Your task to perform on an android device: turn off airplane mode Image 0: 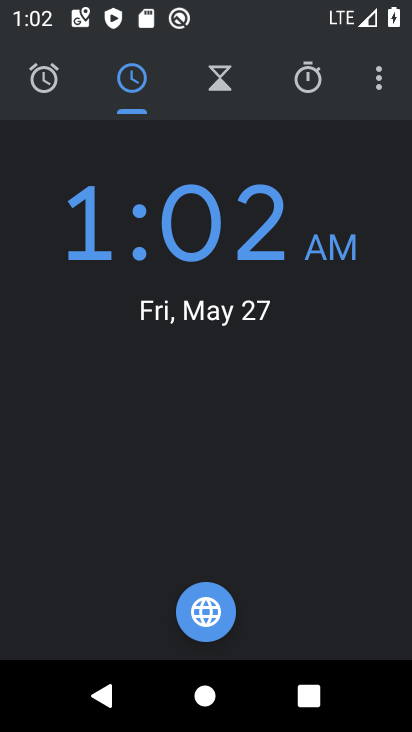
Step 0: press home button
Your task to perform on an android device: turn off airplane mode Image 1: 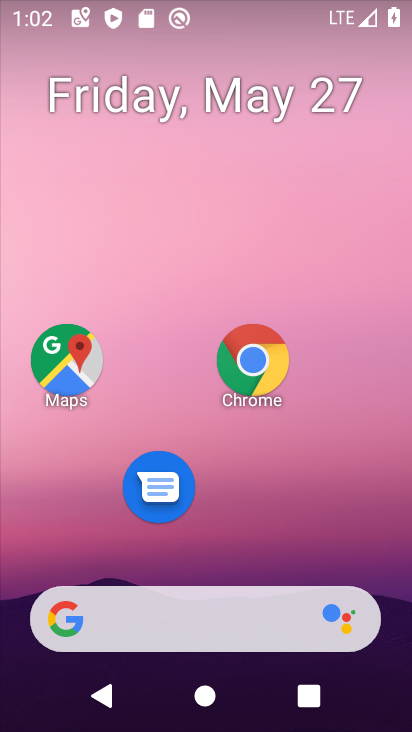
Step 1: drag from (229, 525) to (224, 87)
Your task to perform on an android device: turn off airplane mode Image 2: 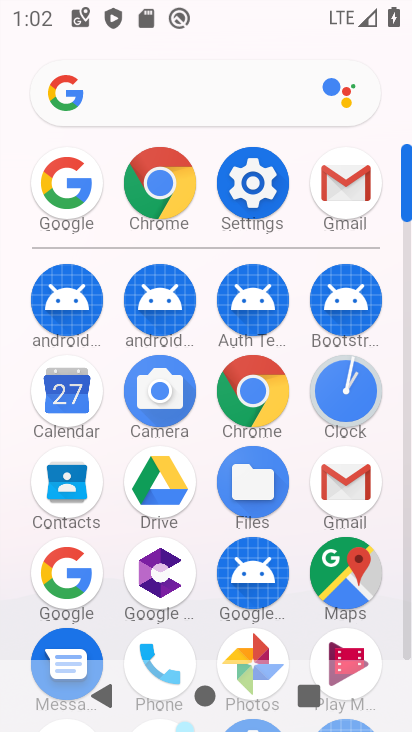
Step 2: click (250, 173)
Your task to perform on an android device: turn off airplane mode Image 3: 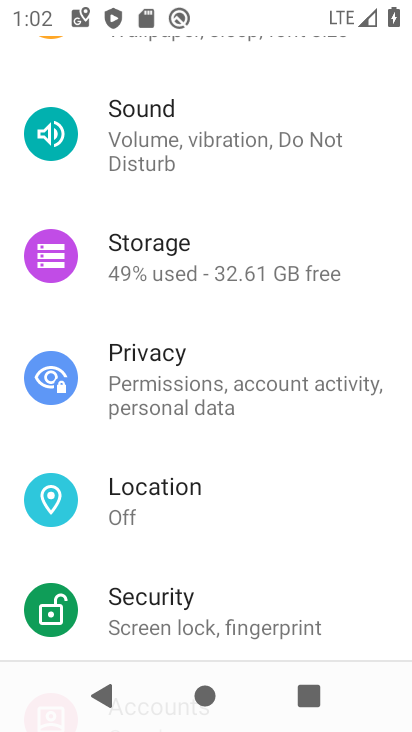
Step 3: drag from (193, 151) to (291, 670)
Your task to perform on an android device: turn off airplane mode Image 4: 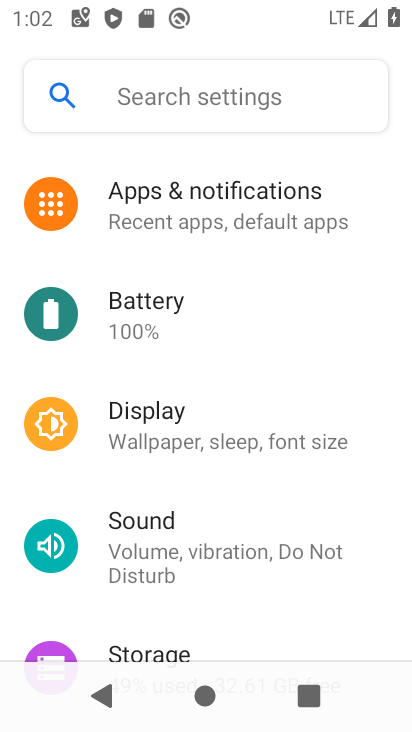
Step 4: drag from (194, 230) to (273, 601)
Your task to perform on an android device: turn off airplane mode Image 5: 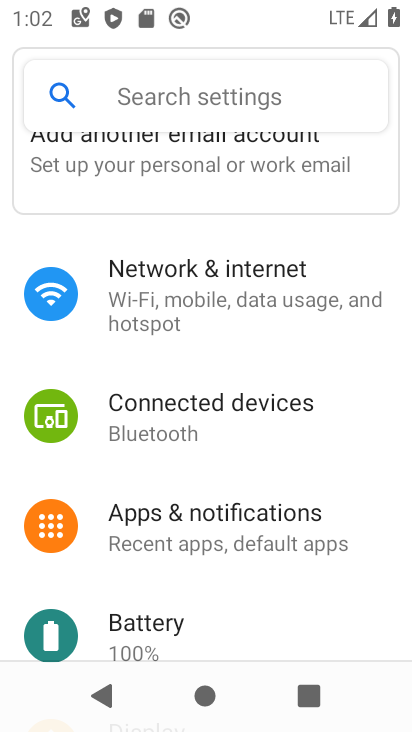
Step 5: click (188, 288)
Your task to perform on an android device: turn off airplane mode Image 6: 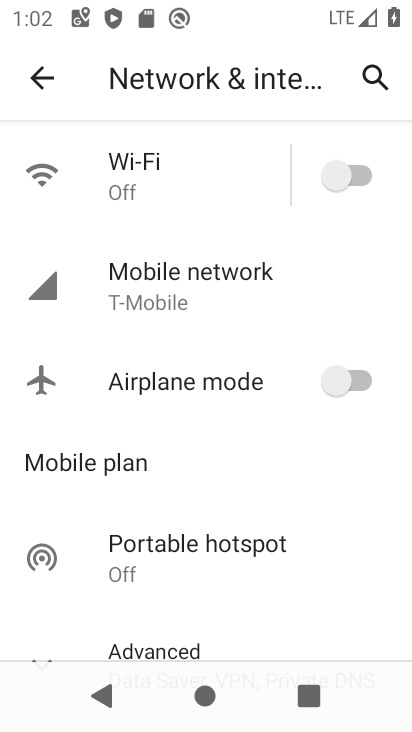
Step 6: task complete